Your task to perform on an android device: open app "Gmail" (install if not already installed) Image 0: 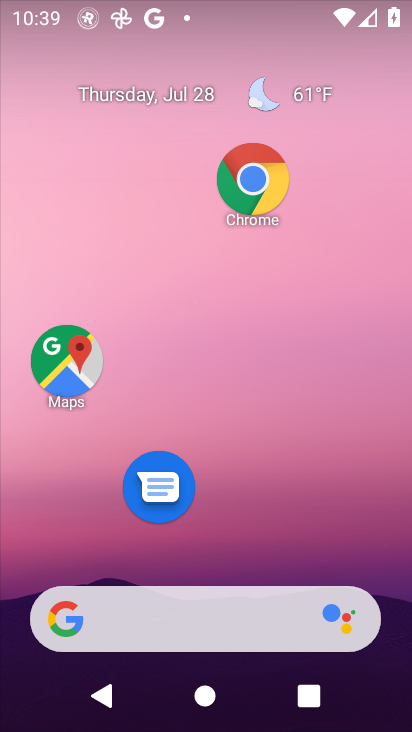
Step 0: drag from (232, 574) to (236, 389)
Your task to perform on an android device: open app "Gmail" (install if not already installed) Image 1: 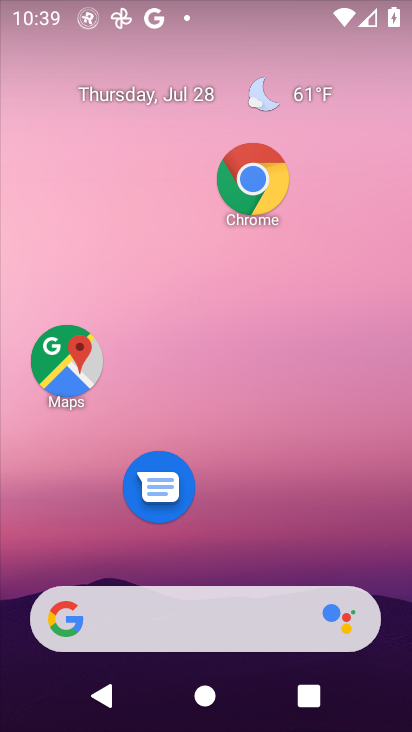
Step 1: drag from (253, 638) to (191, 168)
Your task to perform on an android device: open app "Gmail" (install if not already installed) Image 2: 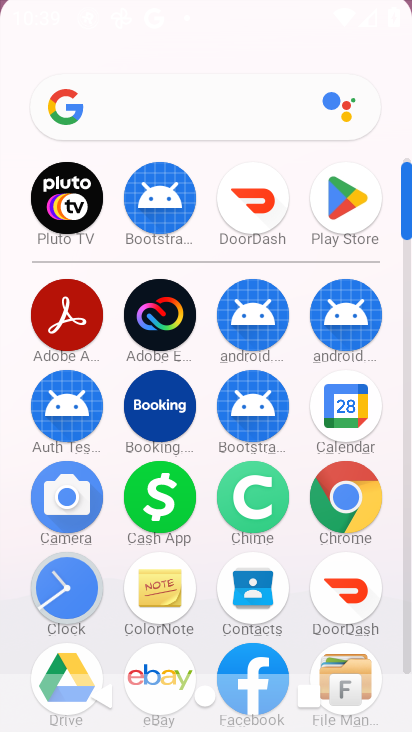
Step 2: drag from (258, 505) to (252, 251)
Your task to perform on an android device: open app "Gmail" (install if not already installed) Image 3: 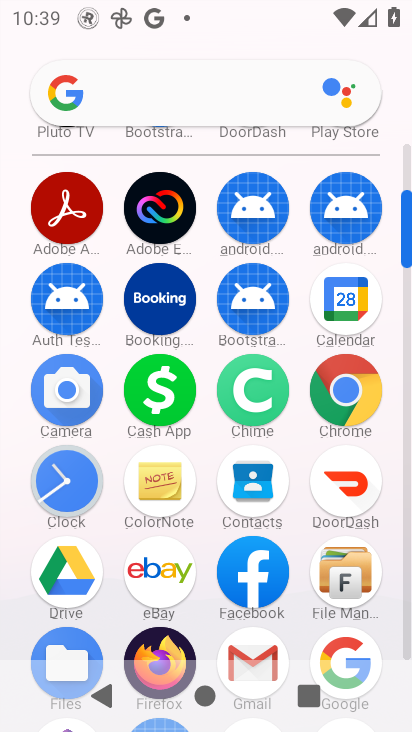
Step 3: press back button
Your task to perform on an android device: open app "Gmail" (install if not already installed) Image 4: 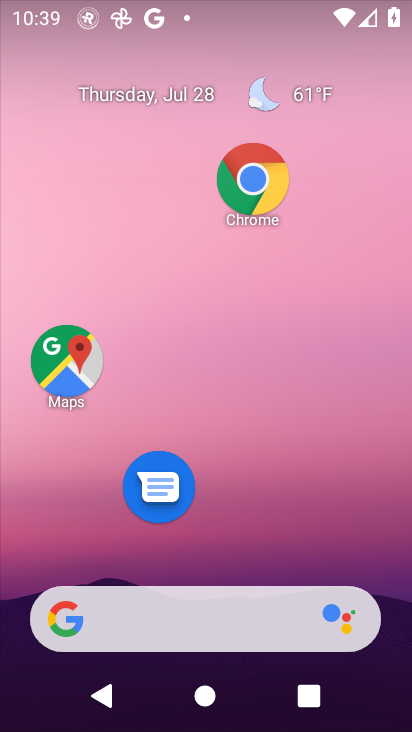
Step 4: drag from (257, 447) to (241, 145)
Your task to perform on an android device: open app "Gmail" (install if not already installed) Image 5: 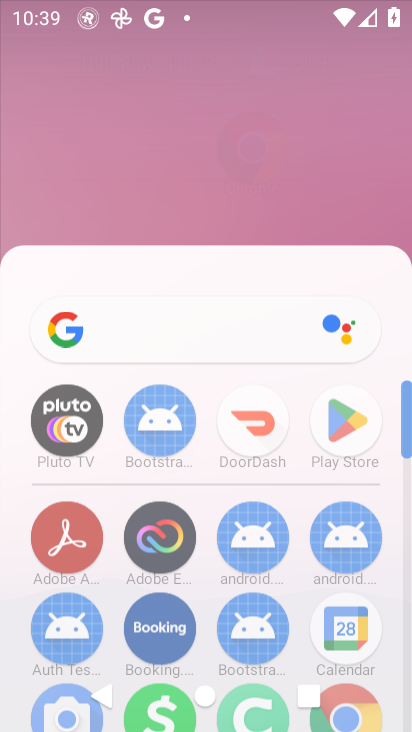
Step 5: drag from (272, 512) to (263, 201)
Your task to perform on an android device: open app "Gmail" (install if not already installed) Image 6: 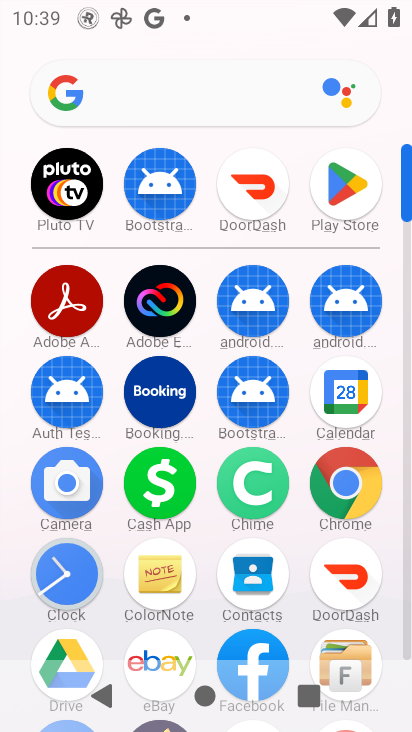
Step 6: drag from (286, 258) to (339, 508)
Your task to perform on an android device: open app "Gmail" (install if not already installed) Image 7: 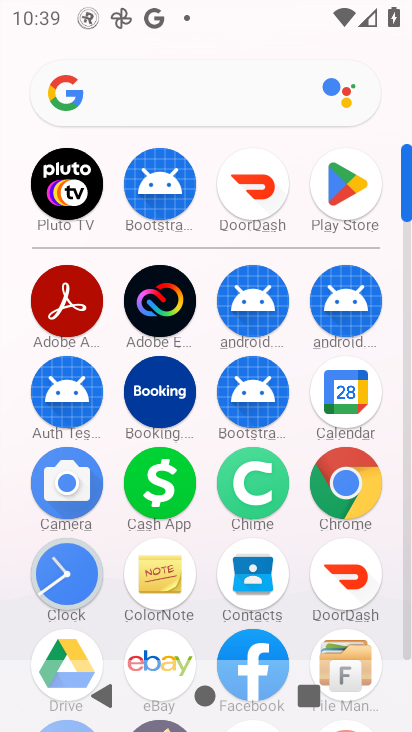
Step 7: drag from (310, 261) to (303, 496)
Your task to perform on an android device: open app "Gmail" (install if not already installed) Image 8: 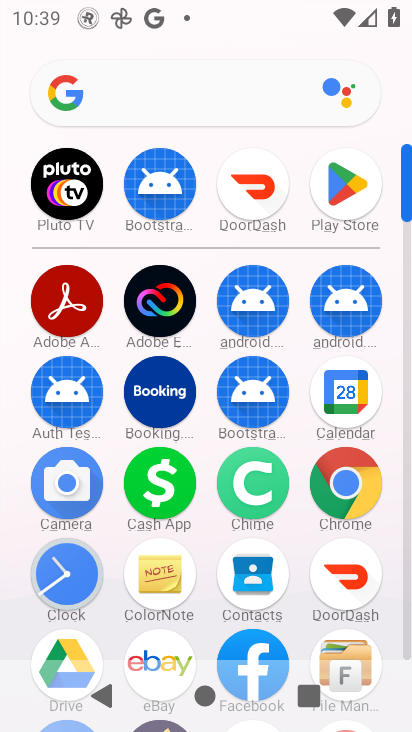
Step 8: click (342, 188)
Your task to perform on an android device: open app "Gmail" (install if not already installed) Image 9: 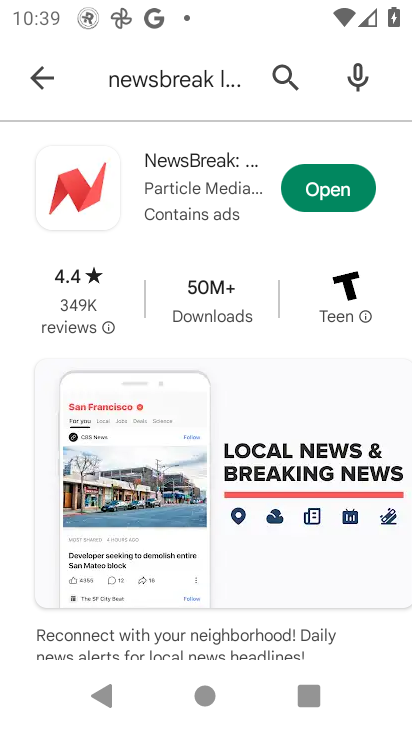
Step 9: click (27, 77)
Your task to perform on an android device: open app "Gmail" (install if not already installed) Image 10: 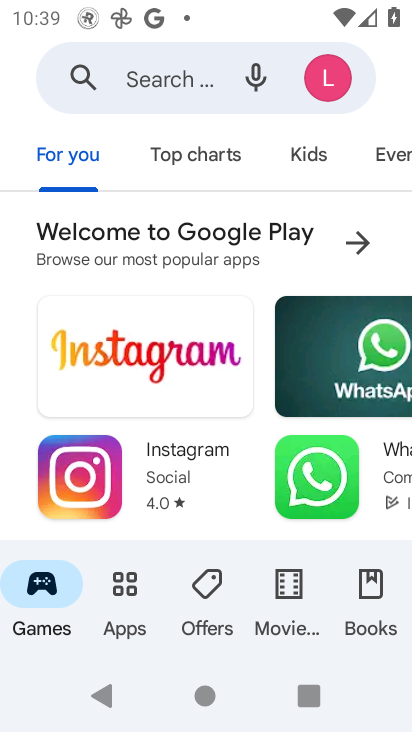
Step 10: click (137, 78)
Your task to perform on an android device: open app "Gmail" (install if not already installed) Image 11: 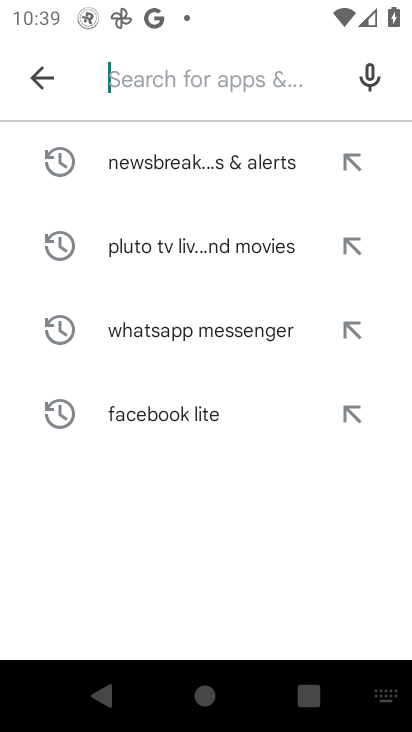
Step 11: type "Gmail"
Your task to perform on an android device: open app "Gmail" (install if not already installed) Image 12: 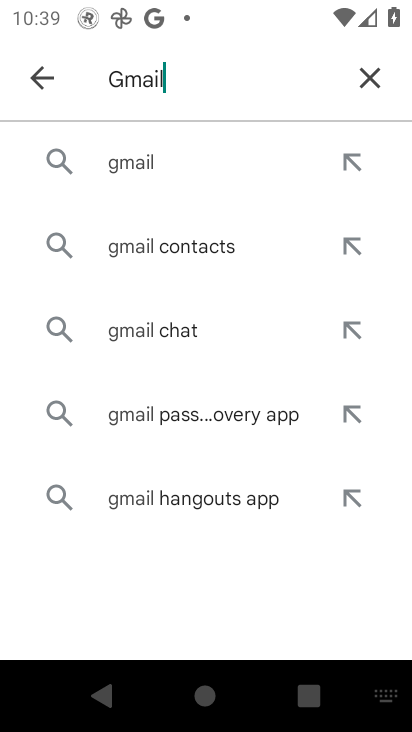
Step 12: click (338, 157)
Your task to perform on an android device: open app "Gmail" (install if not already installed) Image 13: 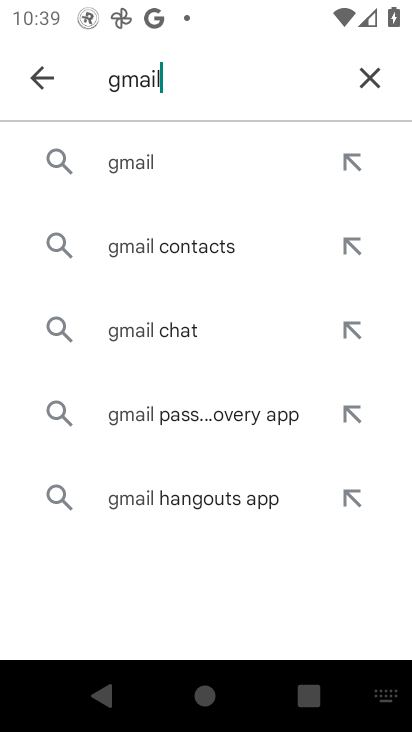
Step 13: click (138, 163)
Your task to perform on an android device: open app "Gmail" (install if not already installed) Image 14: 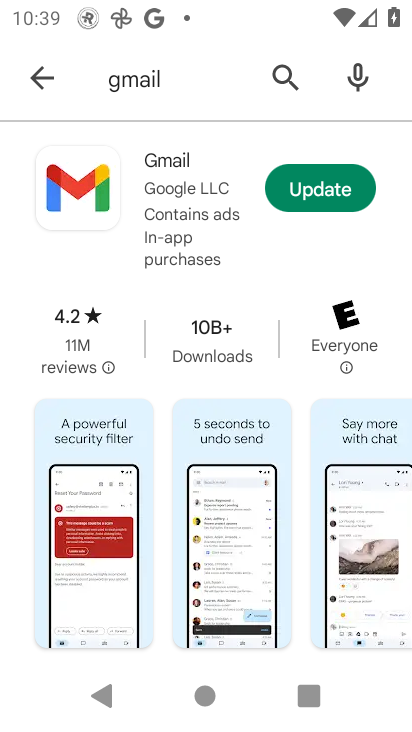
Step 14: click (335, 190)
Your task to perform on an android device: open app "Gmail" (install if not already installed) Image 15: 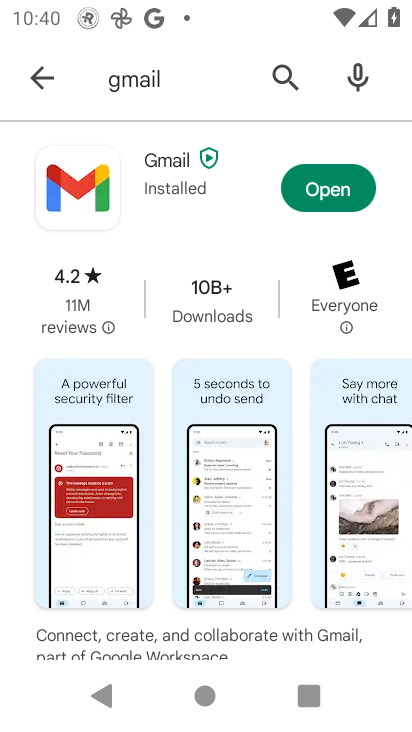
Step 15: click (322, 187)
Your task to perform on an android device: open app "Gmail" (install if not already installed) Image 16: 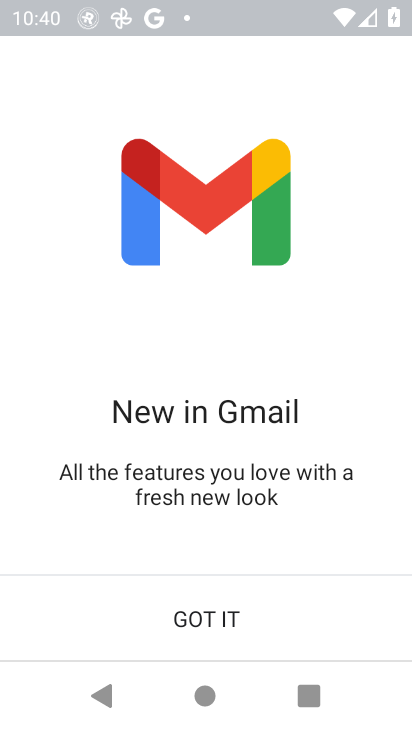
Step 16: click (203, 608)
Your task to perform on an android device: open app "Gmail" (install if not already installed) Image 17: 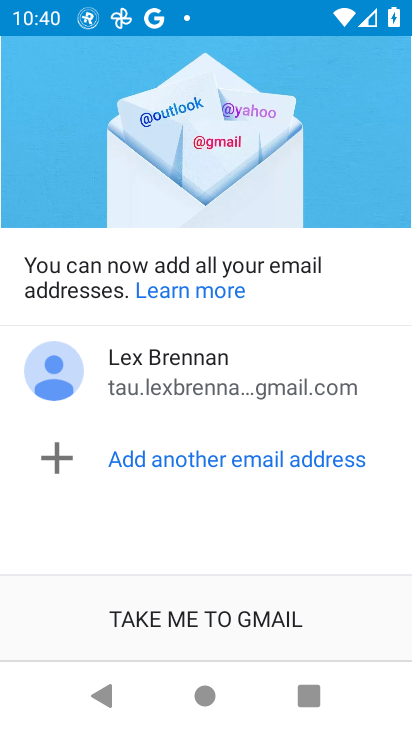
Step 17: click (209, 609)
Your task to perform on an android device: open app "Gmail" (install if not already installed) Image 18: 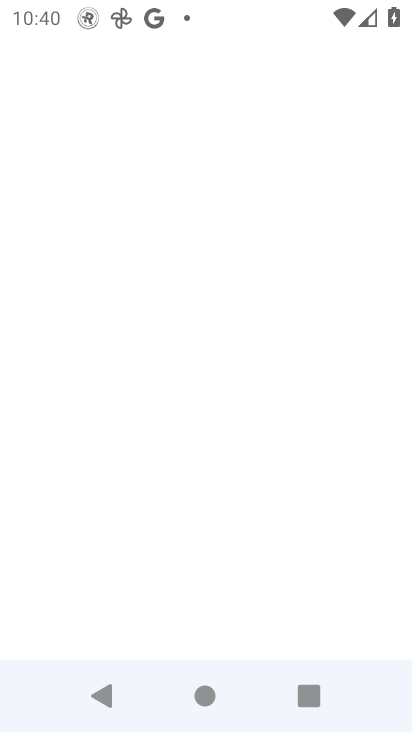
Step 18: task complete